Your task to perform on an android device: turn off improve location accuracy Image 0: 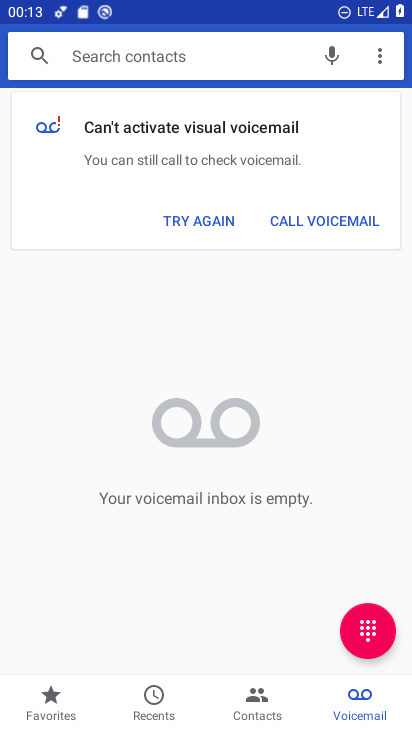
Step 0: press home button
Your task to perform on an android device: turn off improve location accuracy Image 1: 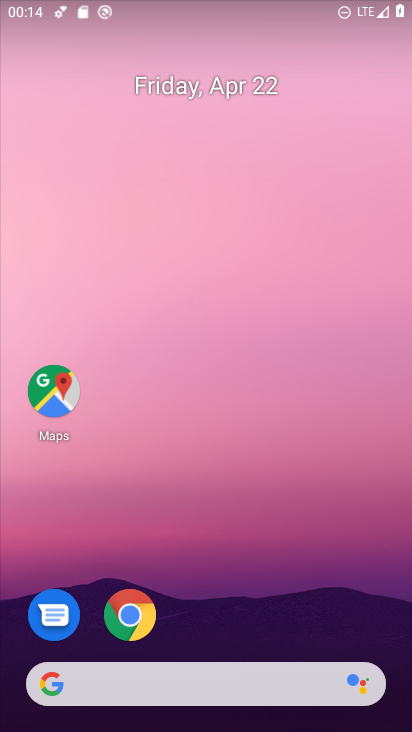
Step 1: drag from (217, 653) to (299, 5)
Your task to perform on an android device: turn off improve location accuracy Image 2: 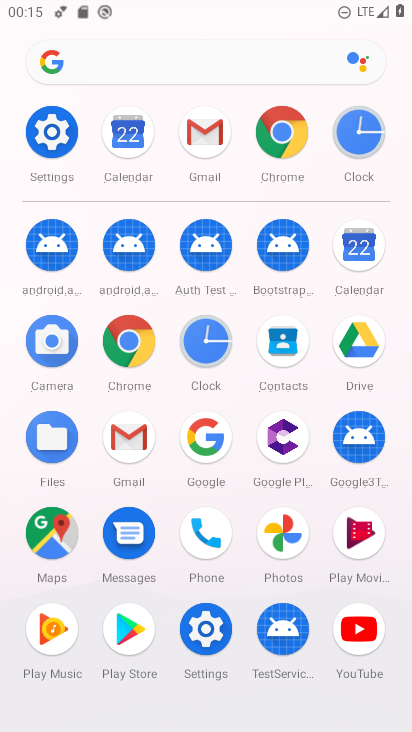
Step 2: click (203, 622)
Your task to perform on an android device: turn off improve location accuracy Image 3: 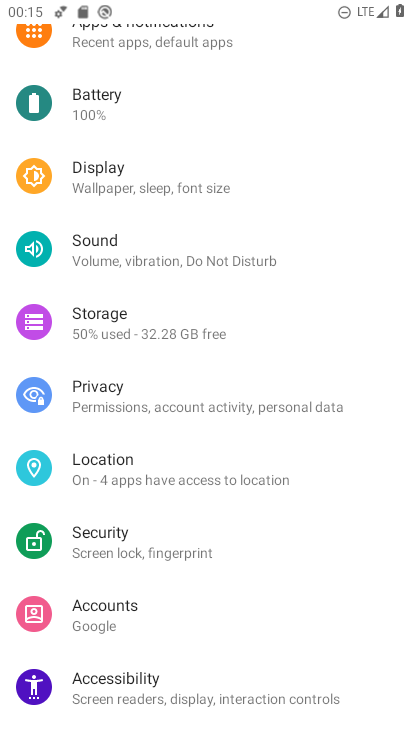
Step 3: click (145, 458)
Your task to perform on an android device: turn off improve location accuracy Image 4: 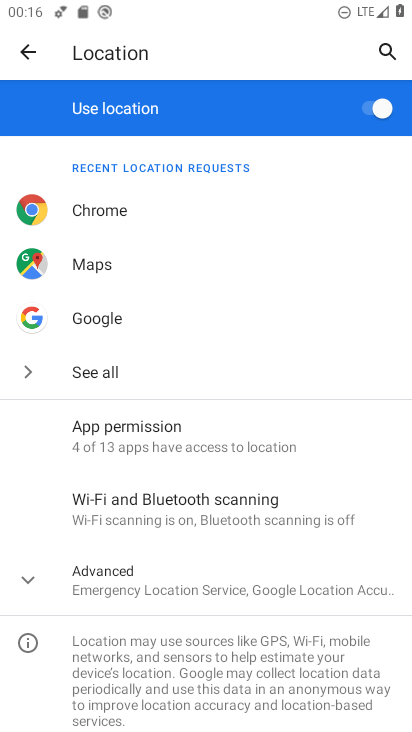
Step 4: click (28, 575)
Your task to perform on an android device: turn off improve location accuracy Image 5: 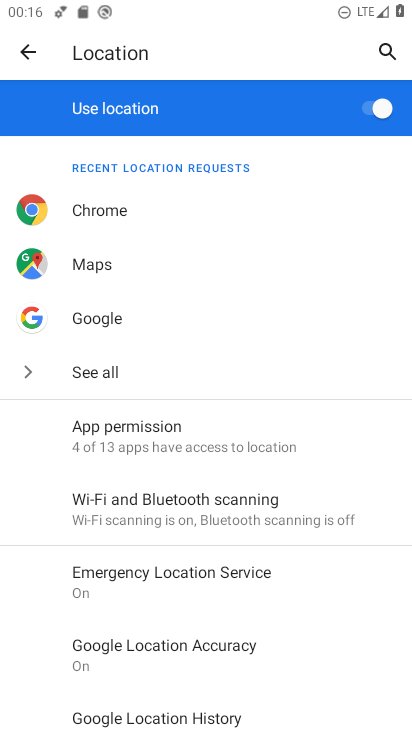
Step 5: click (118, 658)
Your task to perform on an android device: turn off improve location accuracy Image 6: 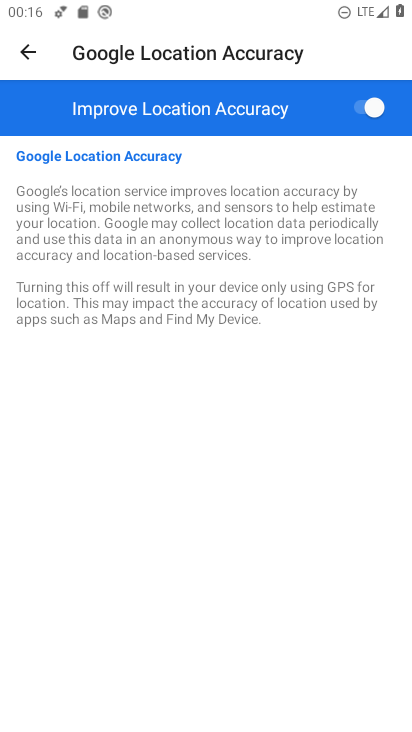
Step 6: click (361, 106)
Your task to perform on an android device: turn off improve location accuracy Image 7: 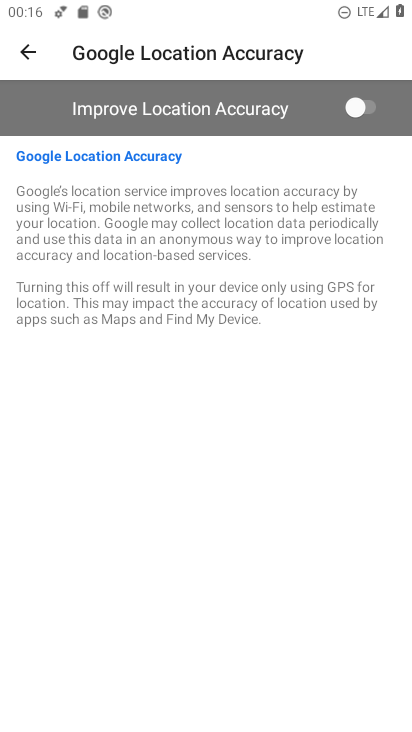
Step 7: task complete